Your task to perform on an android device: Go to Google Image 0: 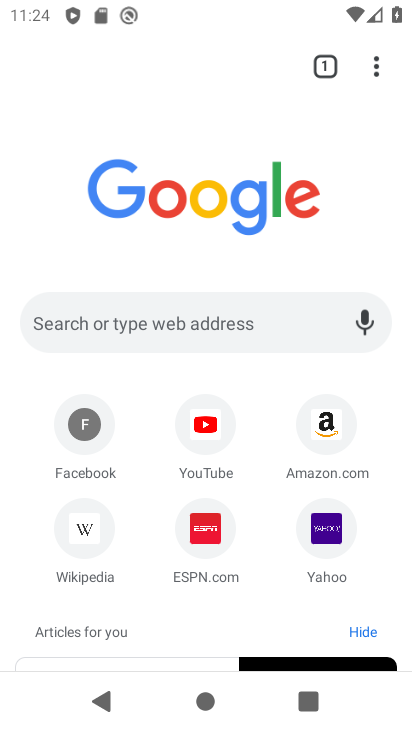
Step 0: task complete